Your task to perform on an android device: toggle pop-ups in chrome Image 0: 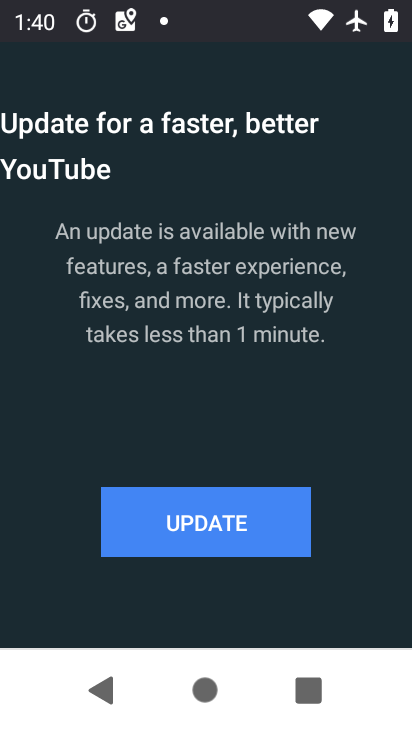
Step 0: press home button
Your task to perform on an android device: toggle pop-ups in chrome Image 1: 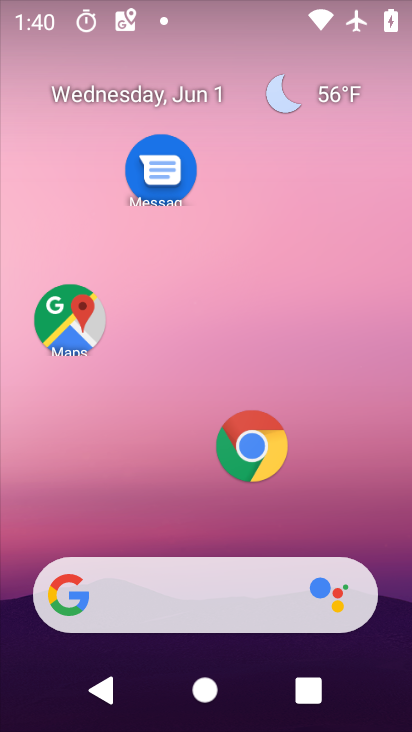
Step 1: drag from (161, 484) to (292, 10)
Your task to perform on an android device: toggle pop-ups in chrome Image 2: 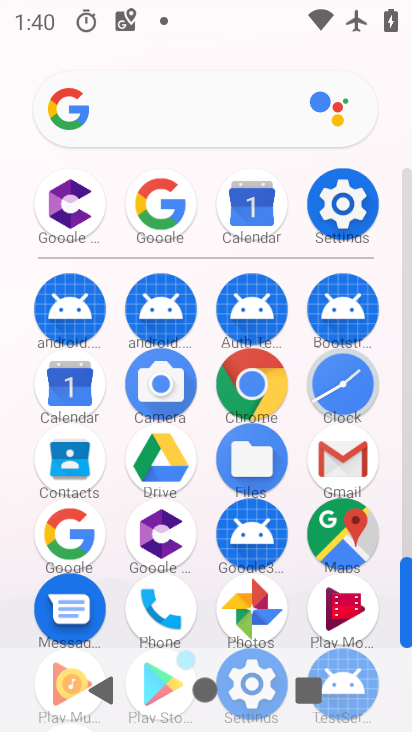
Step 2: click (255, 391)
Your task to perform on an android device: toggle pop-ups in chrome Image 3: 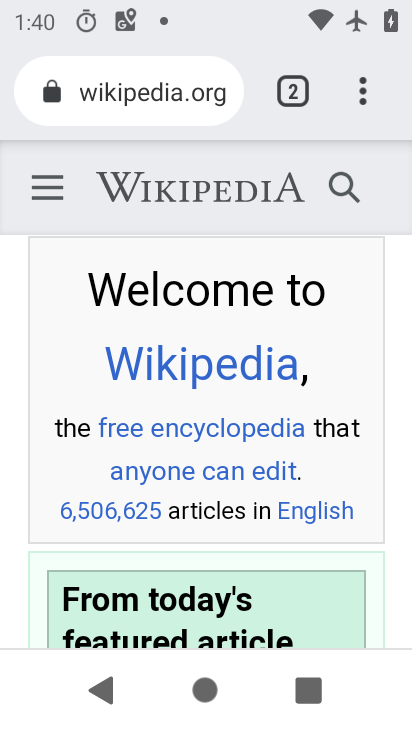
Step 3: click (356, 97)
Your task to perform on an android device: toggle pop-ups in chrome Image 4: 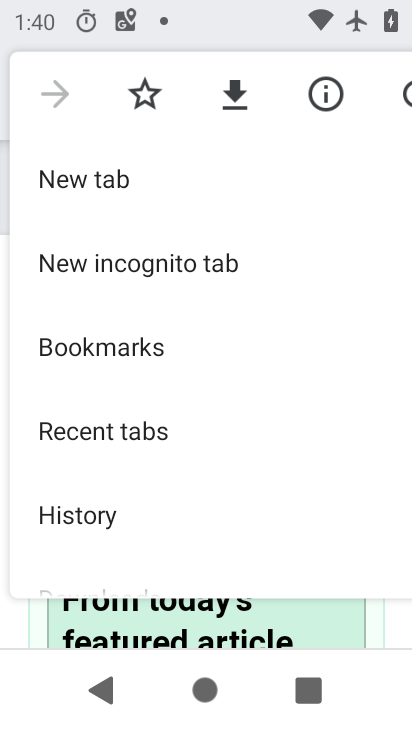
Step 4: drag from (199, 463) to (213, 128)
Your task to perform on an android device: toggle pop-ups in chrome Image 5: 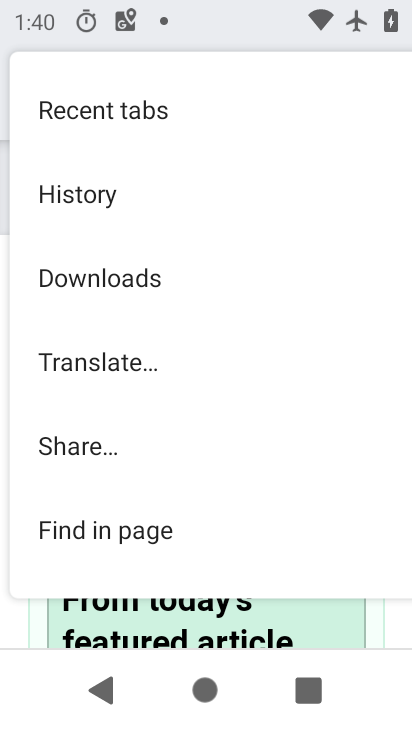
Step 5: drag from (185, 465) to (229, 200)
Your task to perform on an android device: toggle pop-ups in chrome Image 6: 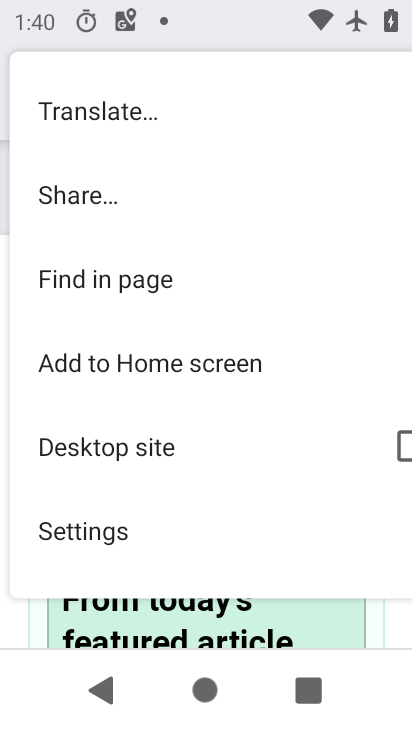
Step 6: click (162, 537)
Your task to perform on an android device: toggle pop-ups in chrome Image 7: 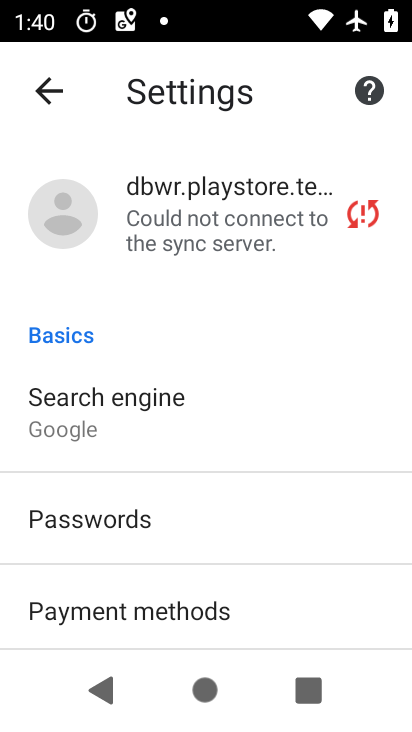
Step 7: drag from (189, 540) to (274, 236)
Your task to perform on an android device: toggle pop-ups in chrome Image 8: 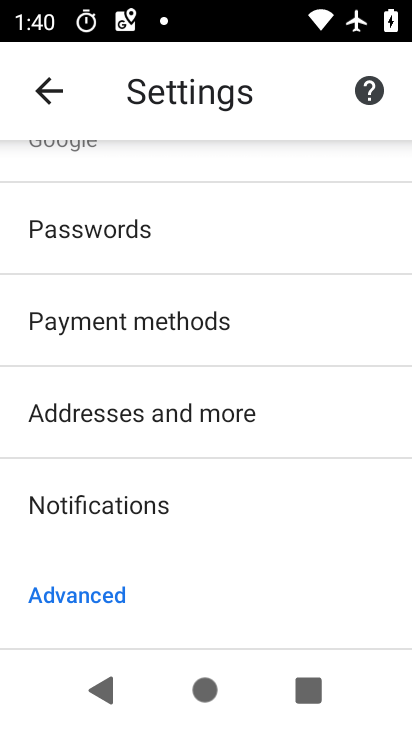
Step 8: drag from (216, 528) to (250, 368)
Your task to perform on an android device: toggle pop-ups in chrome Image 9: 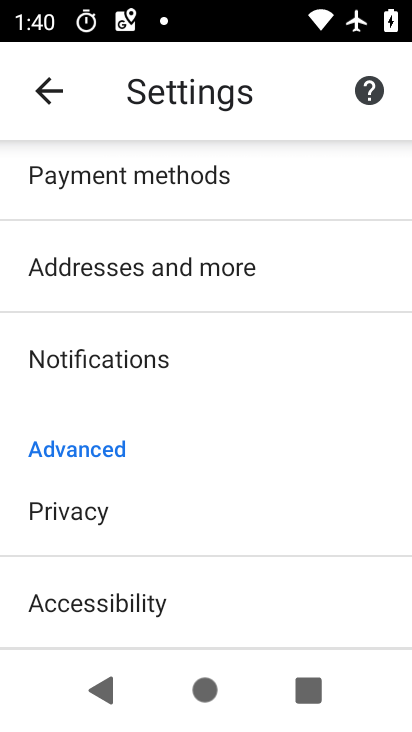
Step 9: drag from (230, 538) to (253, 335)
Your task to perform on an android device: toggle pop-ups in chrome Image 10: 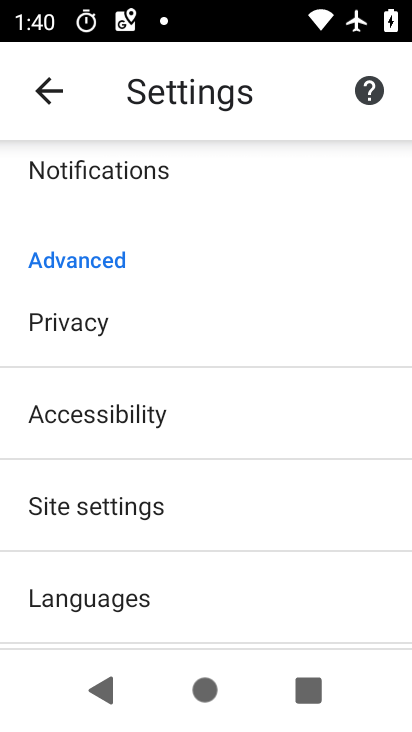
Step 10: click (177, 527)
Your task to perform on an android device: toggle pop-ups in chrome Image 11: 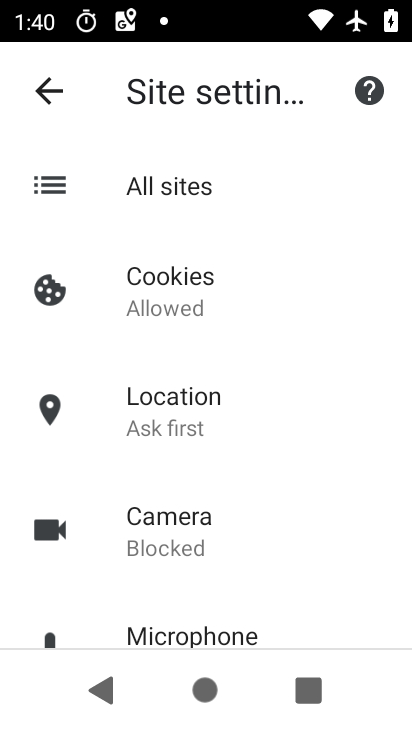
Step 11: drag from (256, 497) to (278, 183)
Your task to perform on an android device: toggle pop-ups in chrome Image 12: 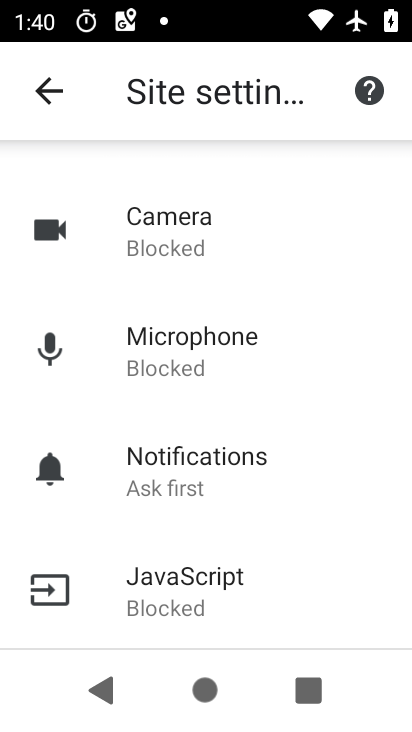
Step 12: drag from (216, 567) to (248, 262)
Your task to perform on an android device: toggle pop-ups in chrome Image 13: 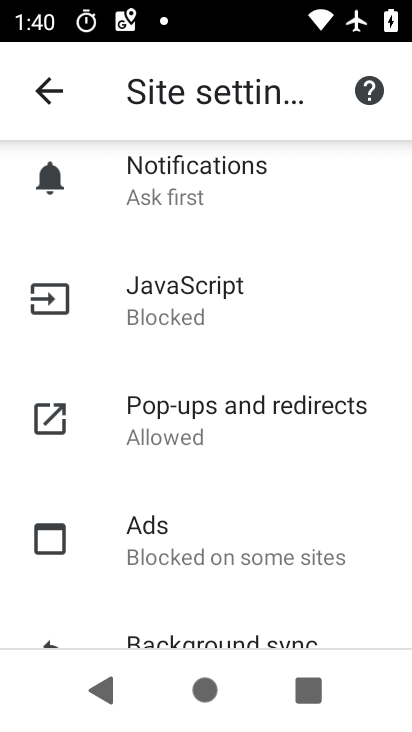
Step 13: click (230, 422)
Your task to perform on an android device: toggle pop-ups in chrome Image 14: 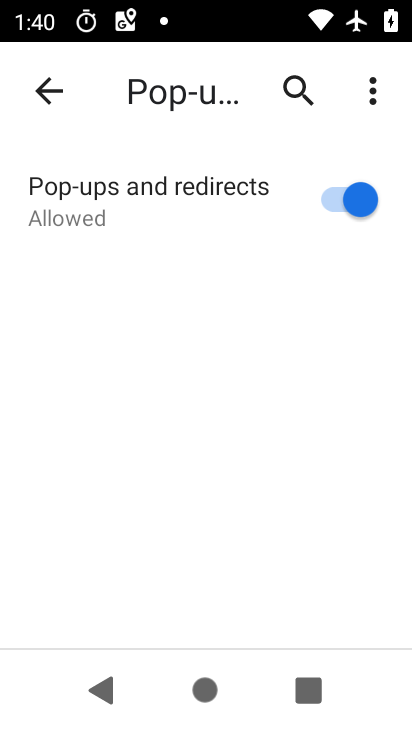
Step 14: click (367, 201)
Your task to perform on an android device: toggle pop-ups in chrome Image 15: 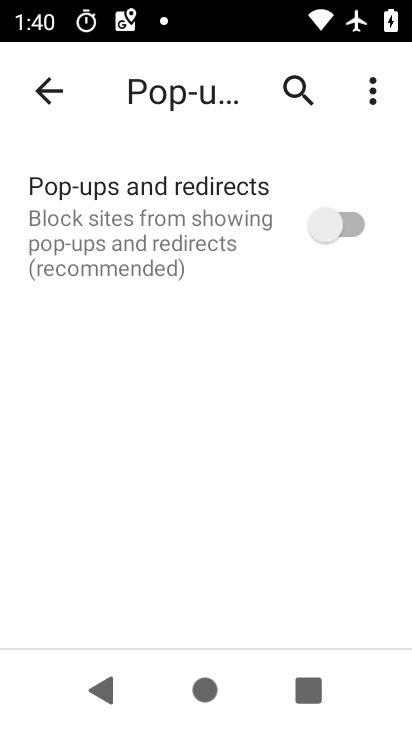
Step 15: task complete